Your task to perform on an android device: visit the assistant section in the google photos Image 0: 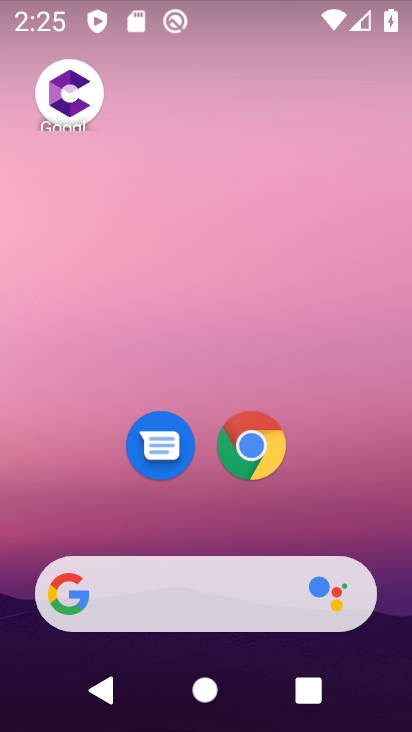
Step 0: drag from (244, 252) to (244, 54)
Your task to perform on an android device: visit the assistant section in the google photos Image 1: 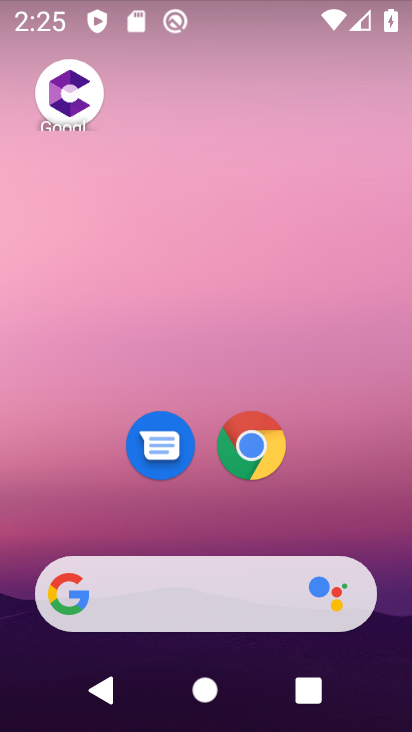
Step 1: drag from (268, 161) to (278, 80)
Your task to perform on an android device: visit the assistant section in the google photos Image 2: 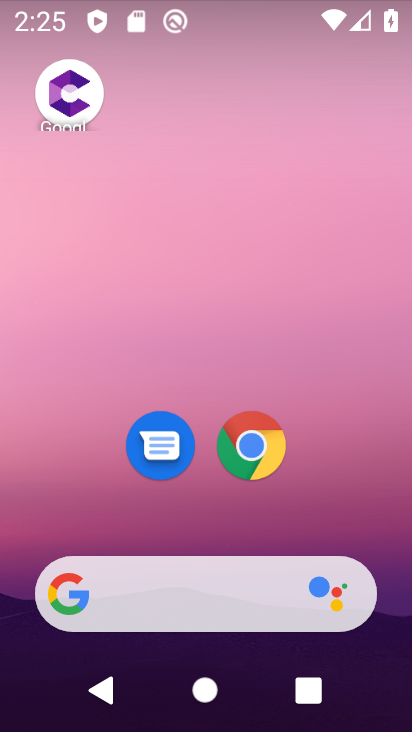
Step 2: drag from (190, 489) to (236, 4)
Your task to perform on an android device: visit the assistant section in the google photos Image 3: 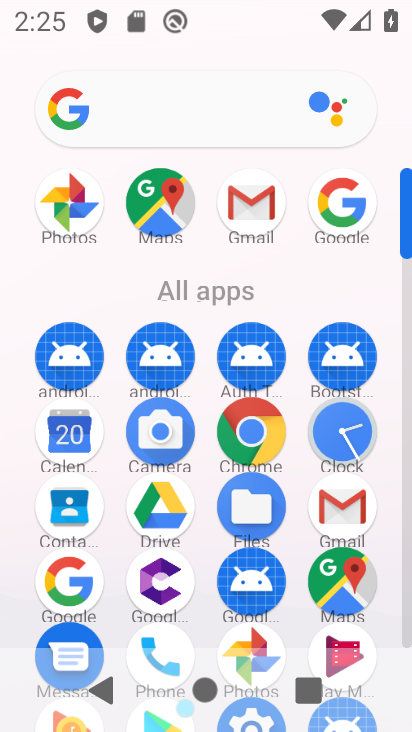
Step 3: click (242, 646)
Your task to perform on an android device: visit the assistant section in the google photos Image 4: 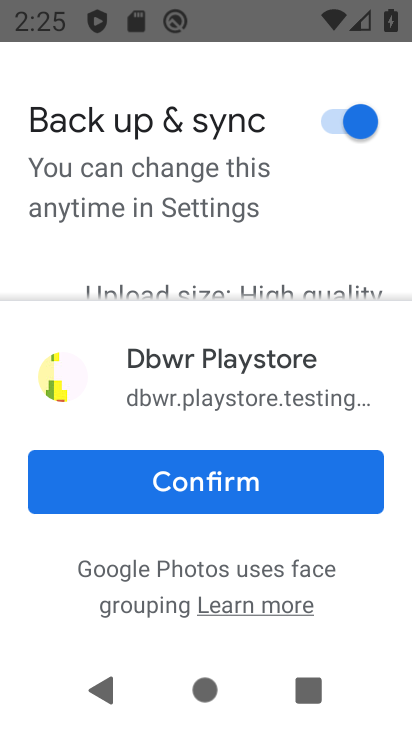
Step 4: click (197, 508)
Your task to perform on an android device: visit the assistant section in the google photos Image 5: 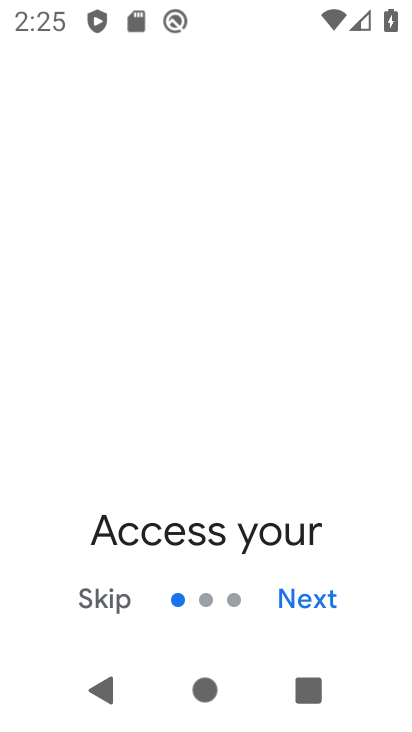
Step 5: click (90, 599)
Your task to perform on an android device: visit the assistant section in the google photos Image 6: 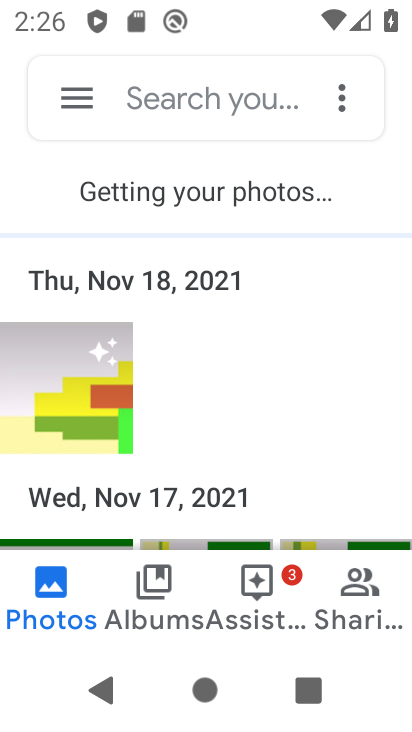
Step 6: click (248, 581)
Your task to perform on an android device: visit the assistant section in the google photos Image 7: 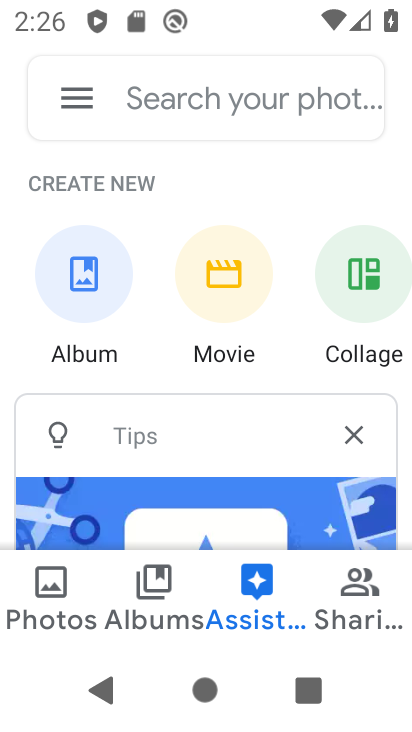
Step 7: task complete